Your task to perform on an android device: Search for usb-a on newegg, select the first entry, and add it to the cart. Image 0: 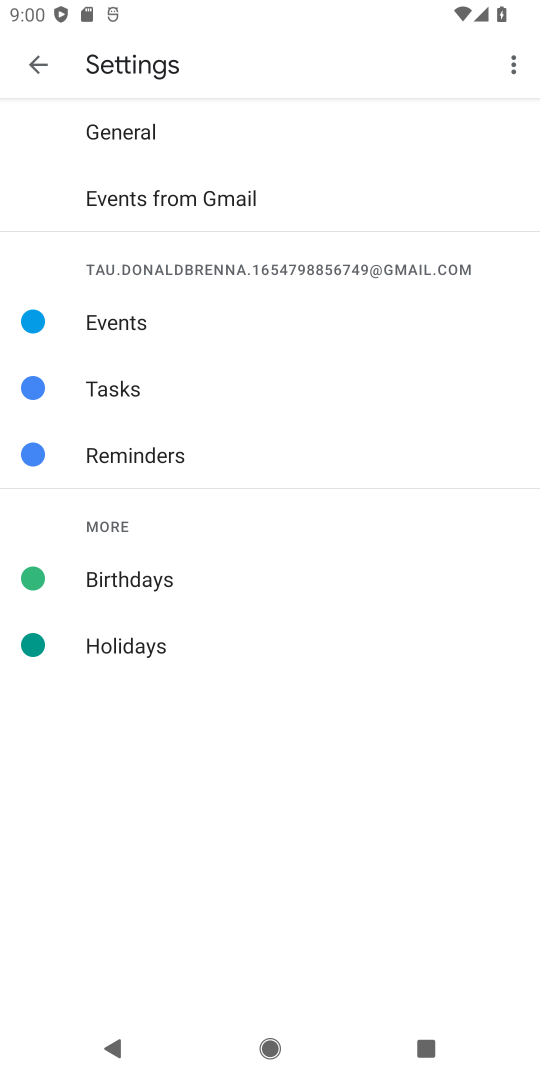
Step 0: press home button
Your task to perform on an android device: Search for usb-a on newegg, select the first entry, and add it to the cart. Image 1: 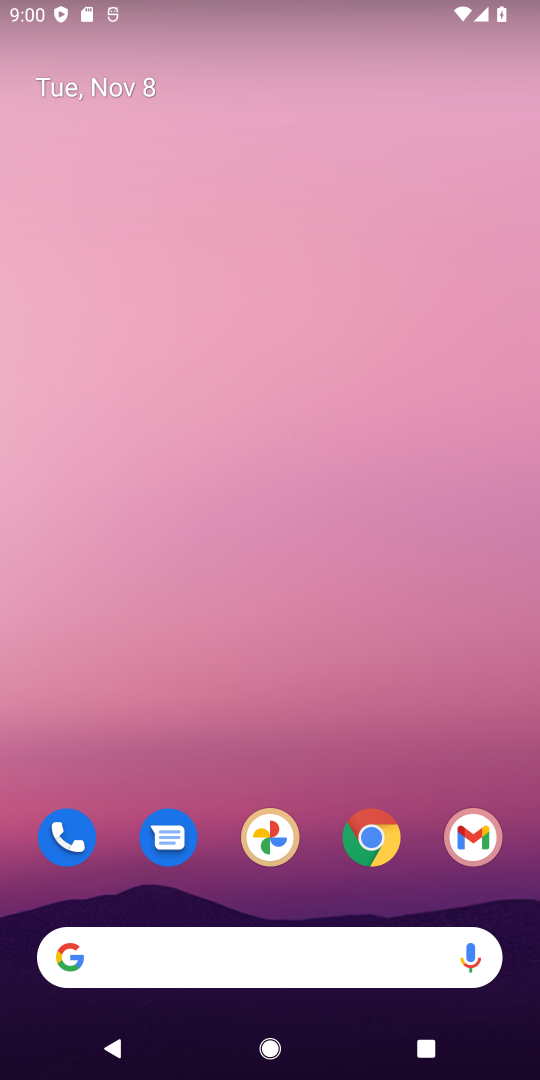
Step 1: click (361, 853)
Your task to perform on an android device: Search for usb-a on newegg, select the first entry, and add it to the cart. Image 2: 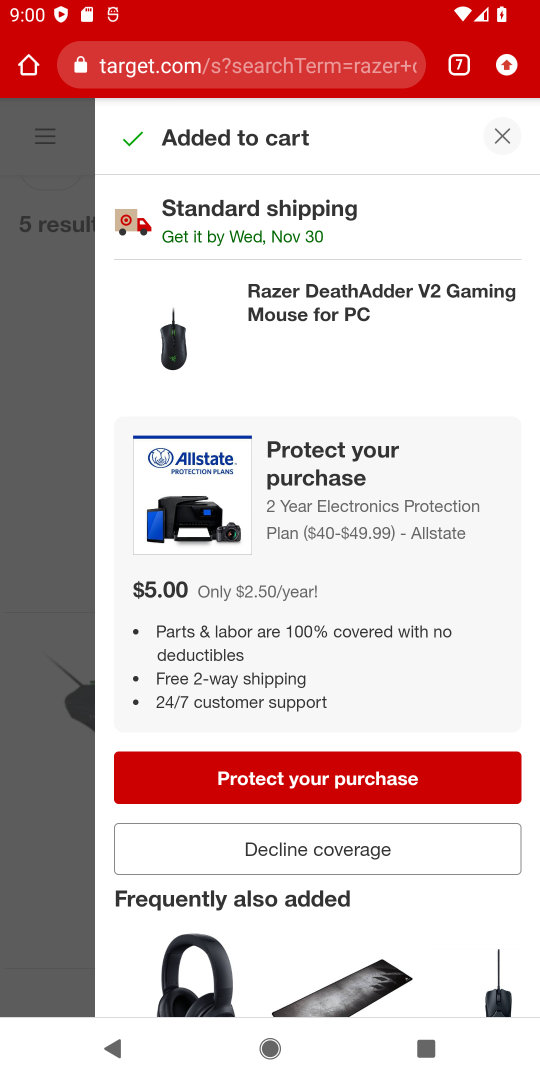
Step 2: click (451, 63)
Your task to perform on an android device: Search for usb-a on newegg, select the first entry, and add it to the cart. Image 3: 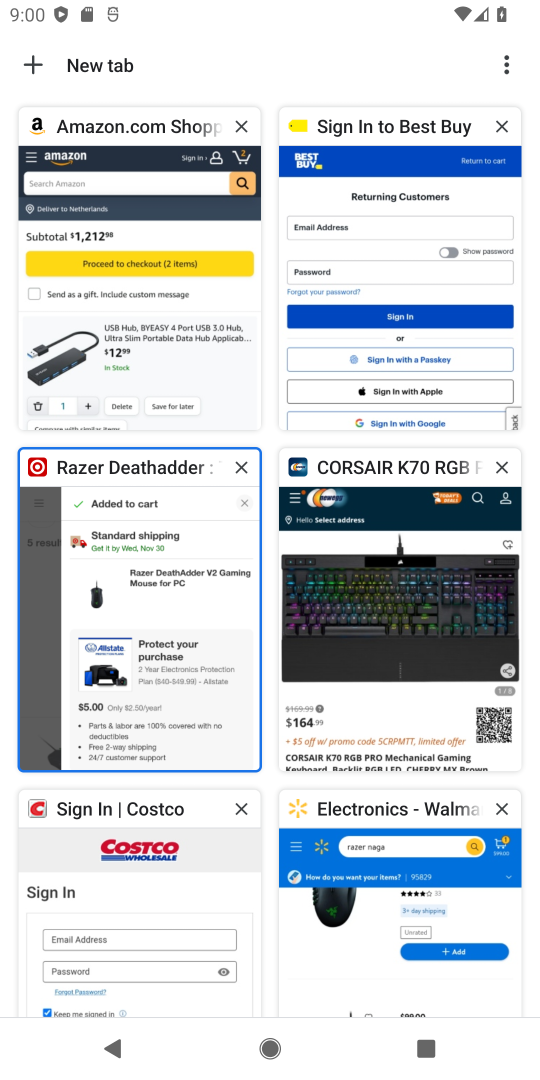
Step 3: click (390, 665)
Your task to perform on an android device: Search for usb-a on newegg, select the first entry, and add it to the cart. Image 4: 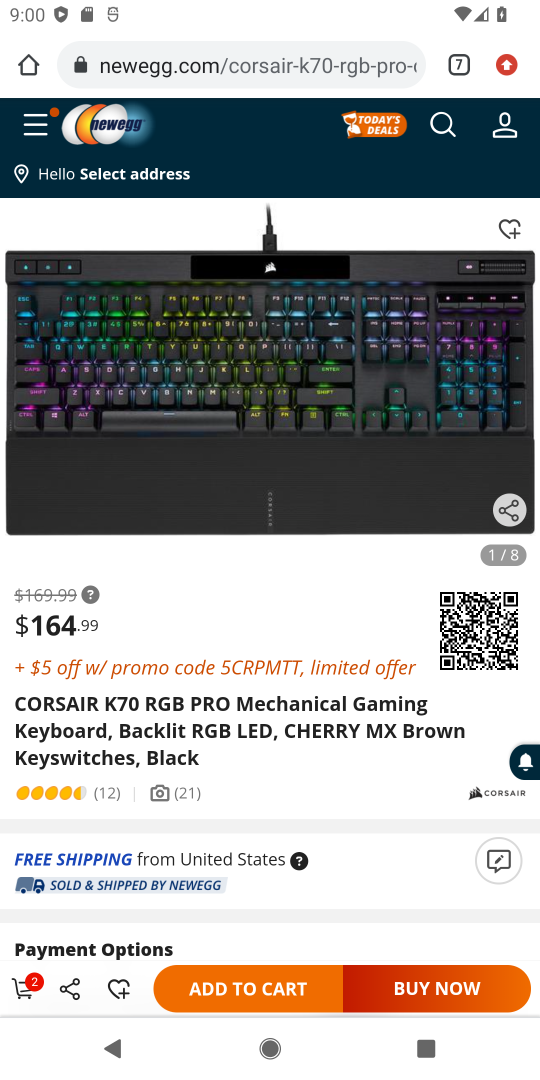
Step 4: click (433, 124)
Your task to perform on an android device: Search for usb-a on newegg, select the first entry, and add it to the cart. Image 5: 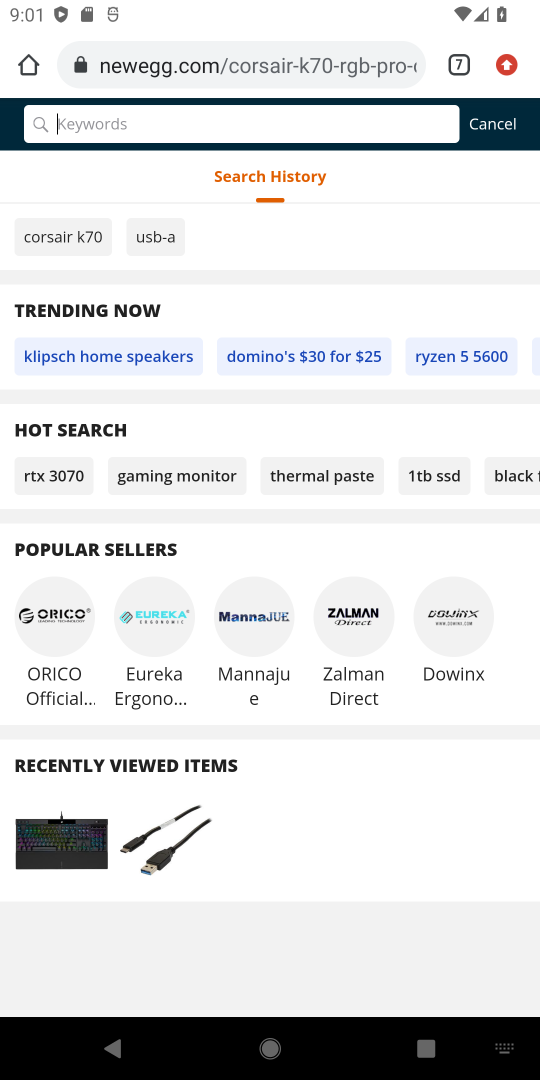
Step 5: type "usb-a"
Your task to perform on an android device: Search for usb-a on newegg, select the first entry, and add it to the cart. Image 6: 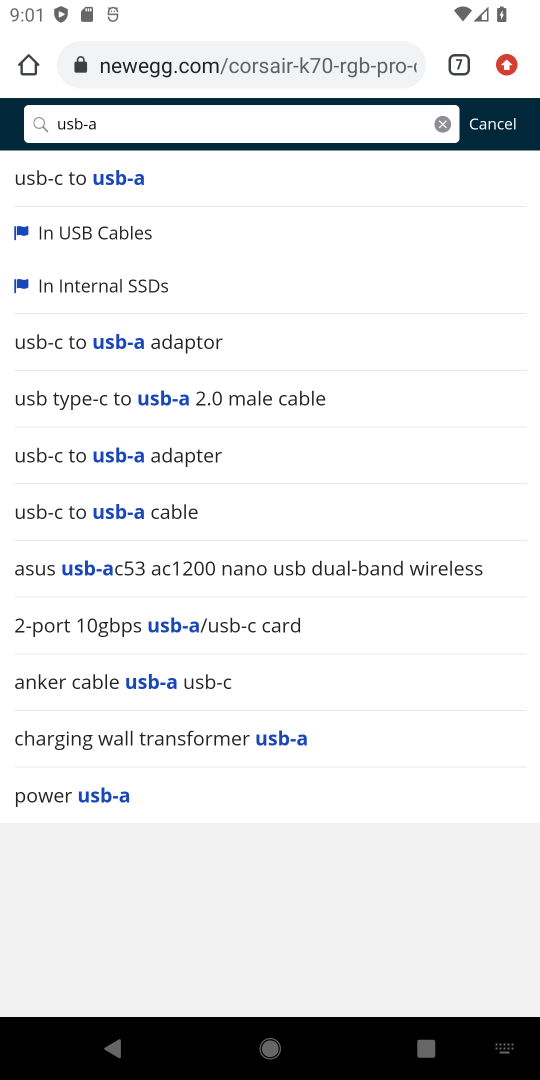
Step 6: click (96, 798)
Your task to perform on an android device: Search for usb-a on newegg, select the first entry, and add it to the cart. Image 7: 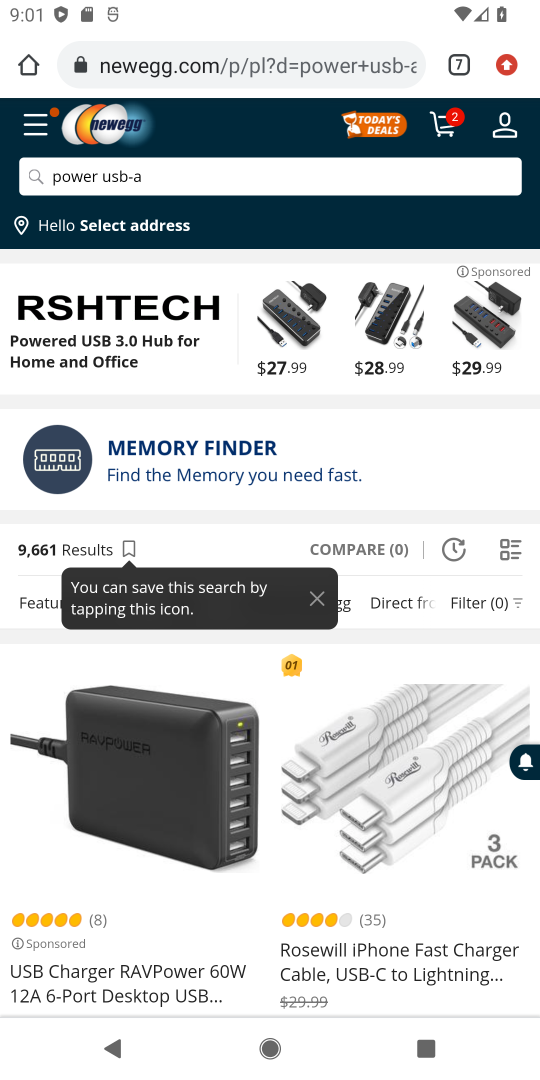
Step 7: click (118, 981)
Your task to perform on an android device: Search for usb-a on newegg, select the first entry, and add it to the cart. Image 8: 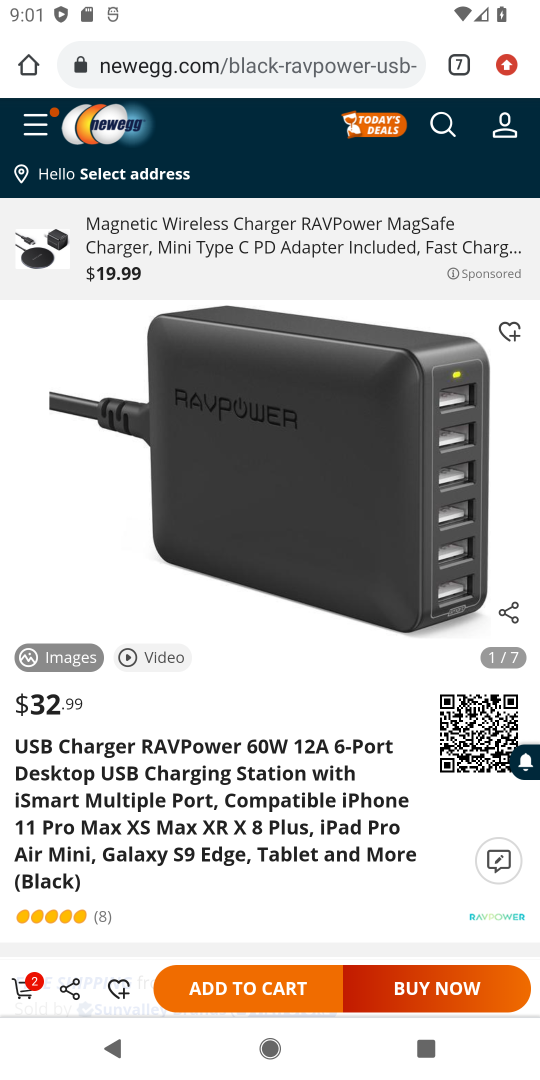
Step 8: click (239, 995)
Your task to perform on an android device: Search for usb-a on newegg, select the first entry, and add it to the cart. Image 9: 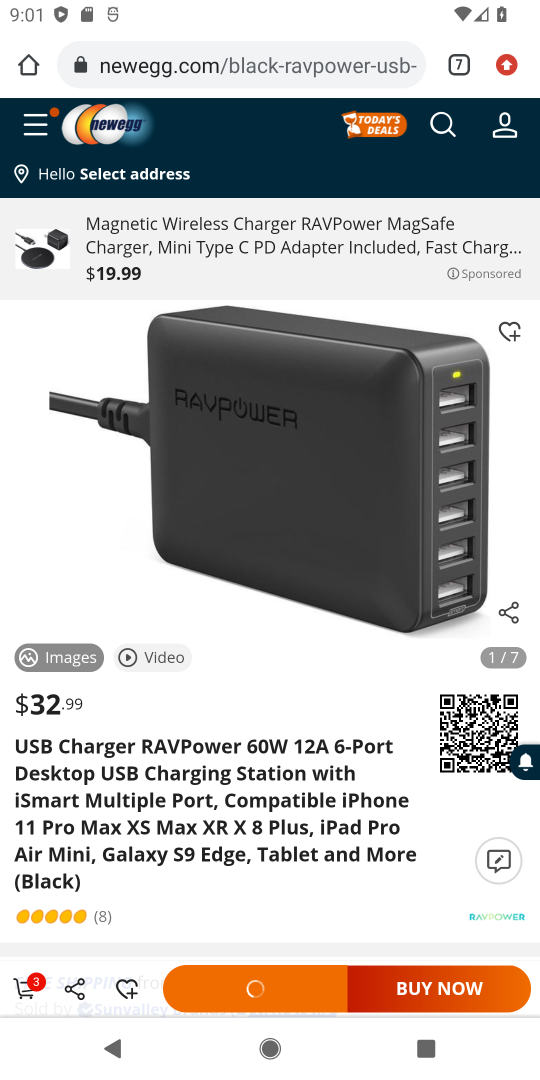
Step 9: task complete